Your task to perform on an android device: Open the stopwatch Image 0: 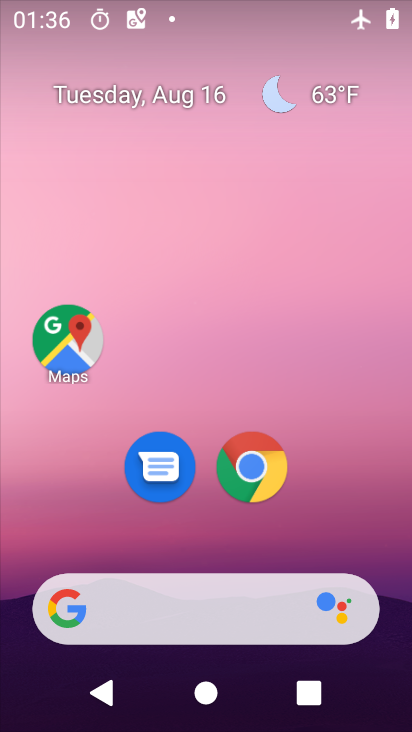
Step 0: press home button
Your task to perform on an android device: Open the stopwatch Image 1: 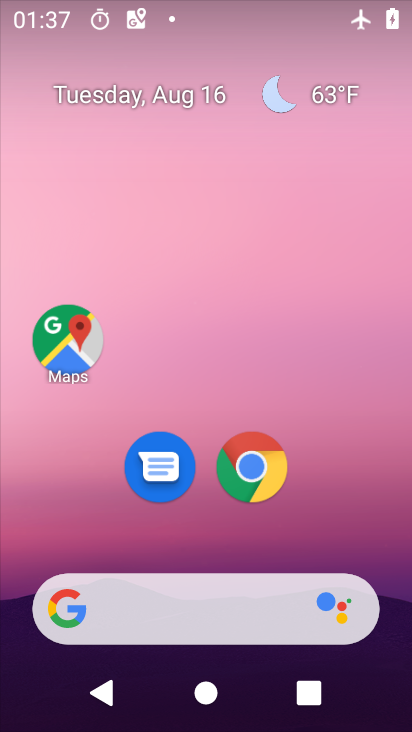
Step 1: drag from (359, 547) to (378, 132)
Your task to perform on an android device: Open the stopwatch Image 2: 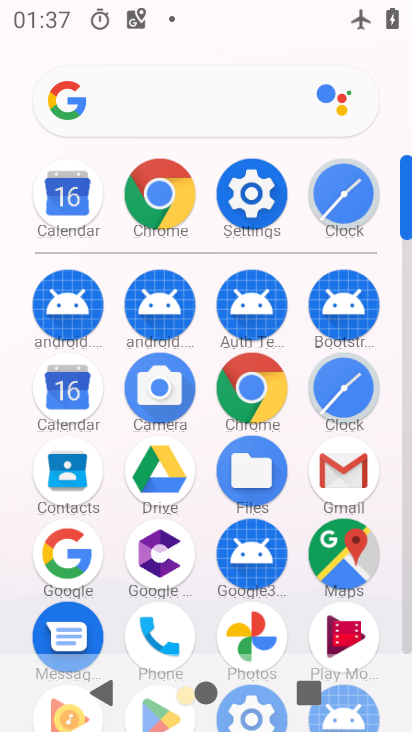
Step 2: click (353, 397)
Your task to perform on an android device: Open the stopwatch Image 3: 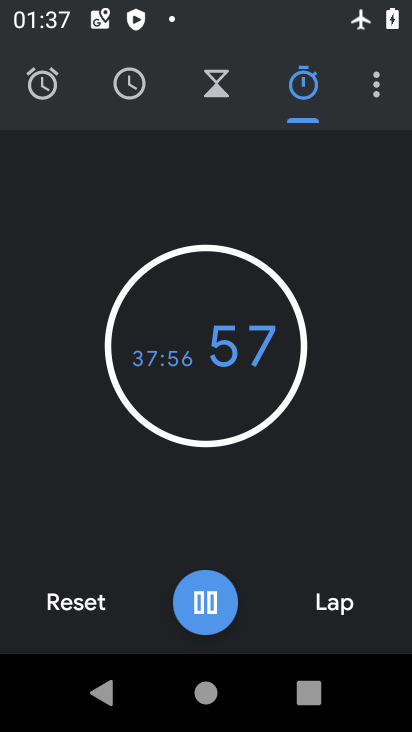
Step 3: task complete